Your task to perform on an android device: turn smart compose on in the gmail app Image 0: 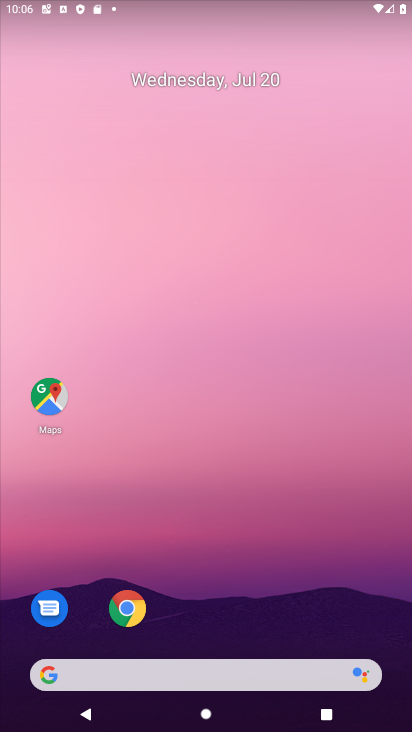
Step 0: drag from (219, 618) to (320, 114)
Your task to perform on an android device: turn smart compose on in the gmail app Image 1: 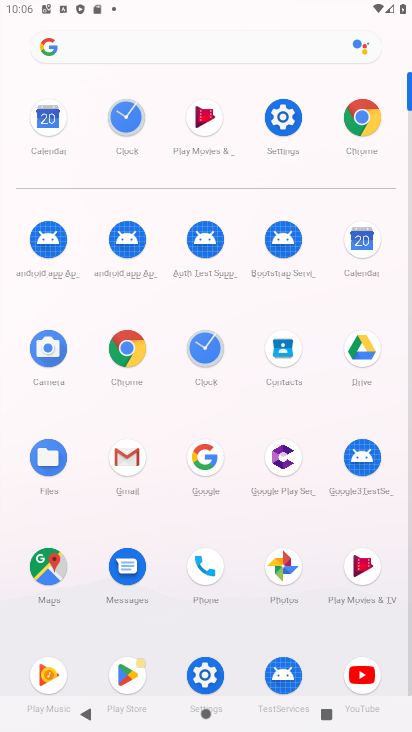
Step 1: click (131, 471)
Your task to perform on an android device: turn smart compose on in the gmail app Image 2: 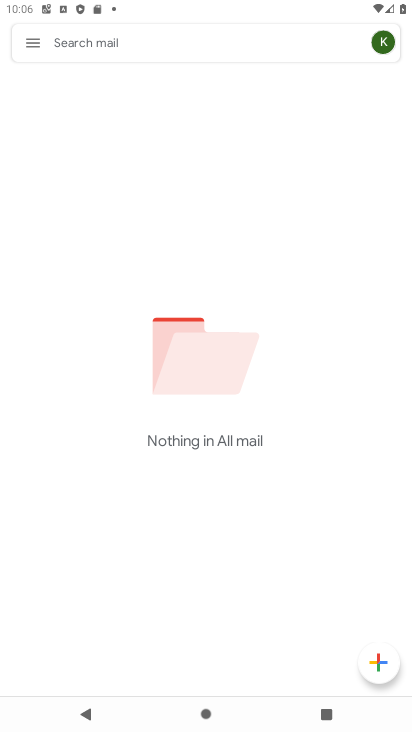
Step 2: click (40, 43)
Your task to perform on an android device: turn smart compose on in the gmail app Image 3: 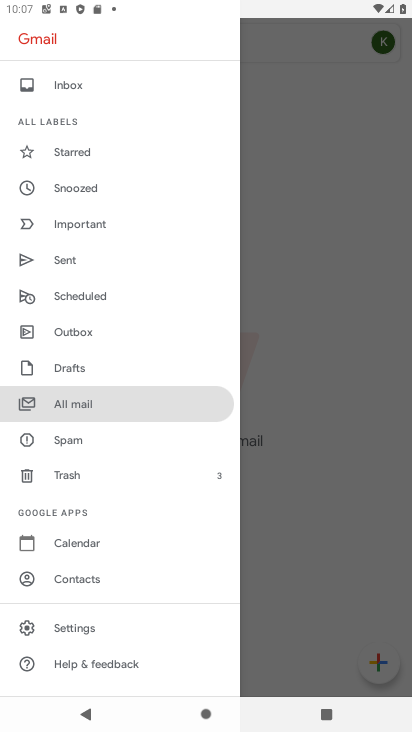
Step 3: click (103, 625)
Your task to perform on an android device: turn smart compose on in the gmail app Image 4: 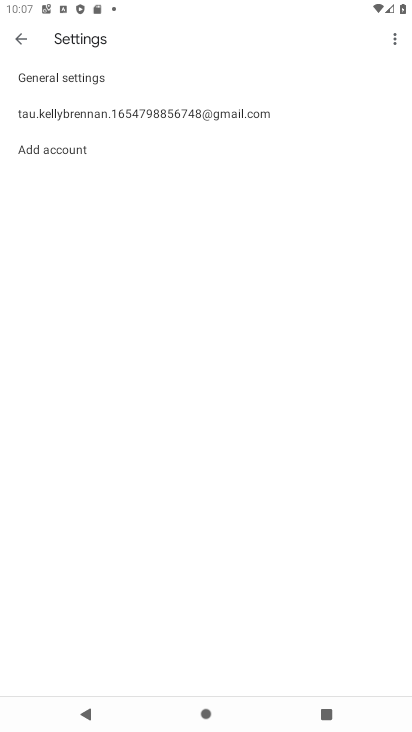
Step 4: click (106, 109)
Your task to perform on an android device: turn smart compose on in the gmail app Image 5: 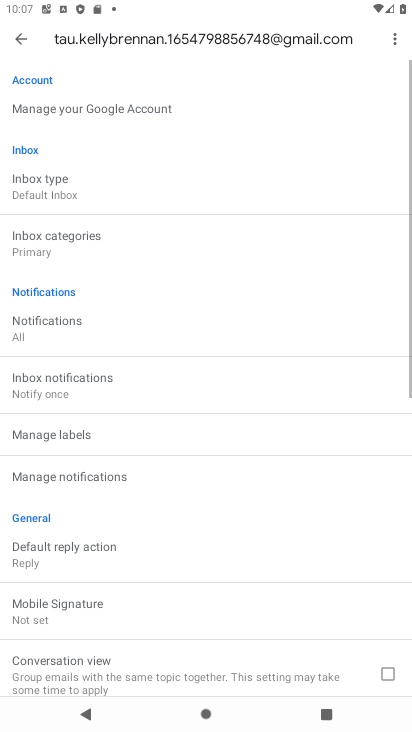
Step 5: click (166, 311)
Your task to perform on an android device: turn smart compose on in the gmail app Image 6: 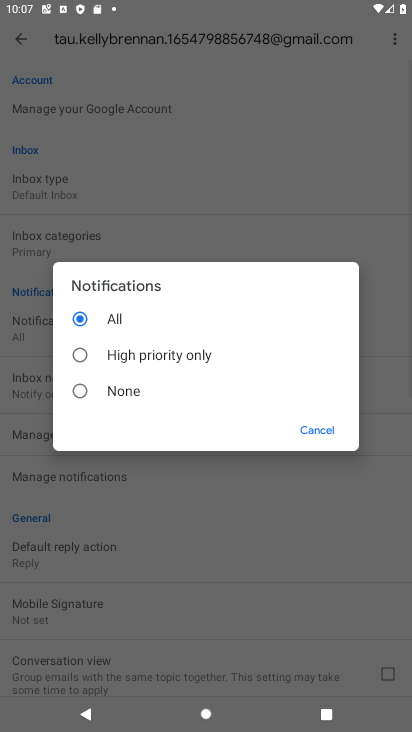
Step 6: click (328, 435)
Your task to perform on an android device: turn smart compose on in the gmail app Image 7: 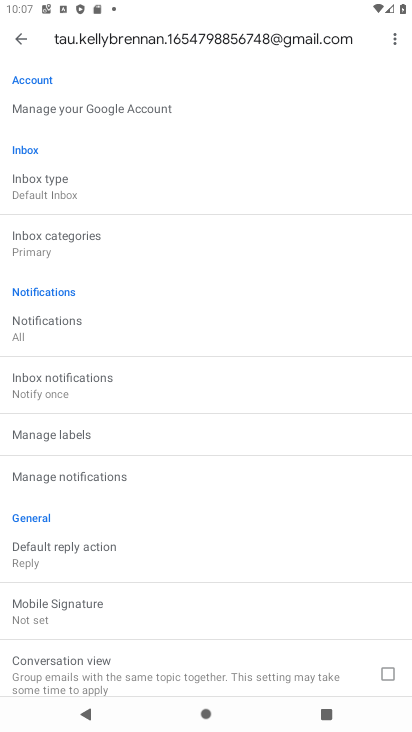
Step 7: task complete